Your task to perform on an android device: install app "Flipkart Online Shopping App" Image 0: 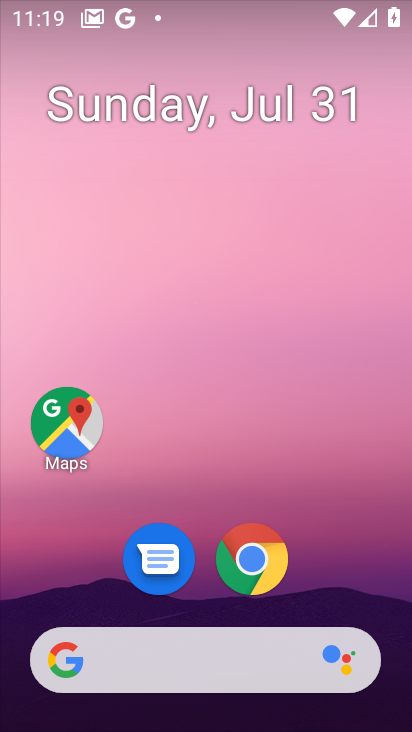
Step 0: drag from (128, 466) to (224, 13)
Your task to perform on an android device: install app "Flipkart Online Shopping App" Image 1: 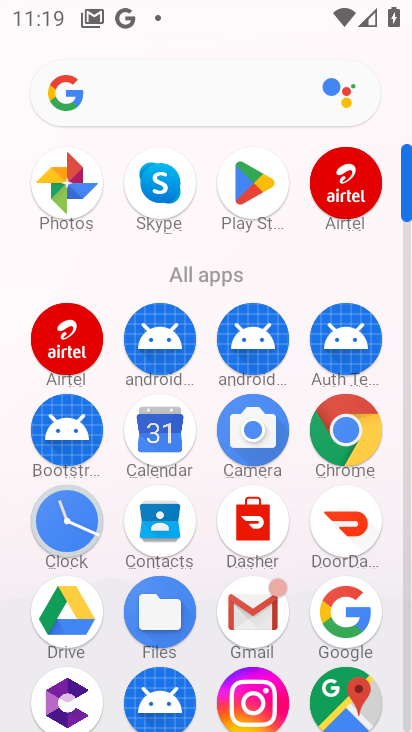
Step 1: click (257, 190)
Your task to perform on an android device: install app "Flipkart Online Shopping App" Image 2: 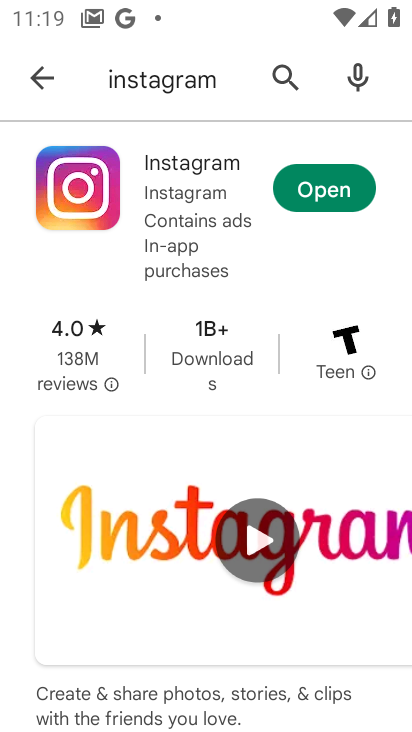
Step 2: click (279, 86)
Your task to perform on an android device: install app "Flipkart Online Shopping App" Image 3: 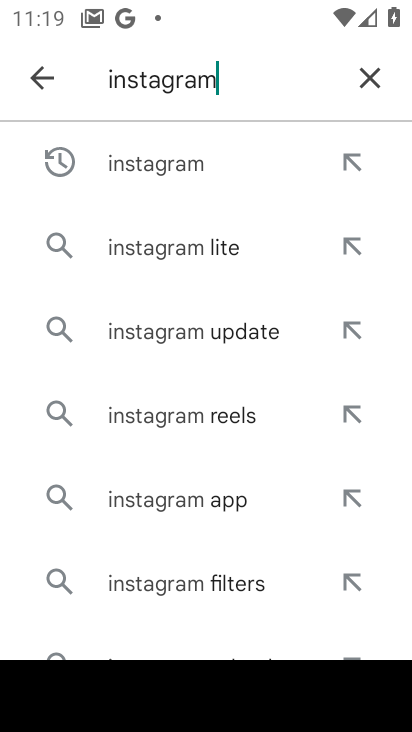
Step 3: click (374, 75)
Your task to perform on an android device: install app "Flipkart Online Shopping App" Image 4: 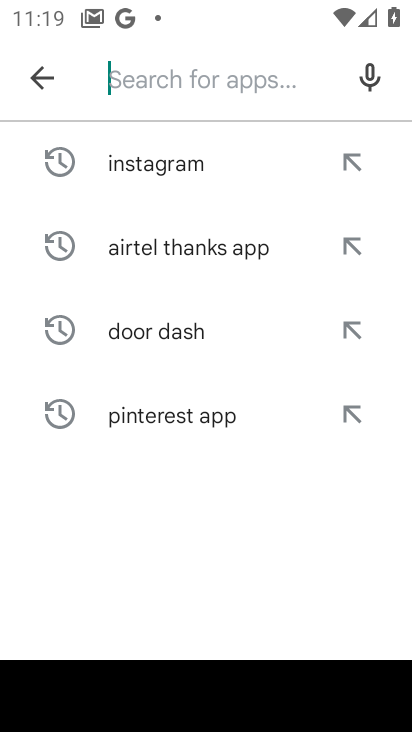
Step 4: click (179, 75)
Your task to perform on an android device: install app "Flipkart Online Shopping App" Image 5: 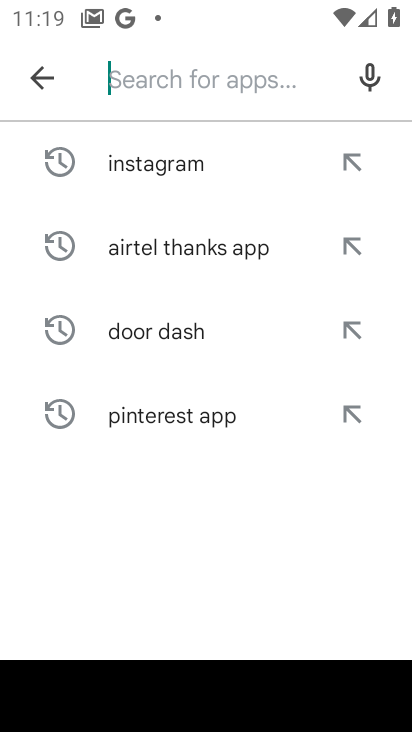
Step 5: click (137, 70)
Your task to perform on an android device: install app "Flipkart Online Shopping App" Image 6: 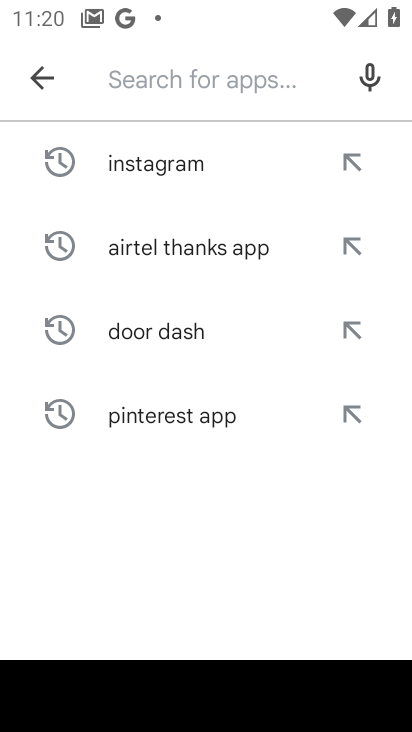
Step 6: type "flipkart"
Your task to perform on an android device: install app "Flipkart Online Shopping App" Image 7: 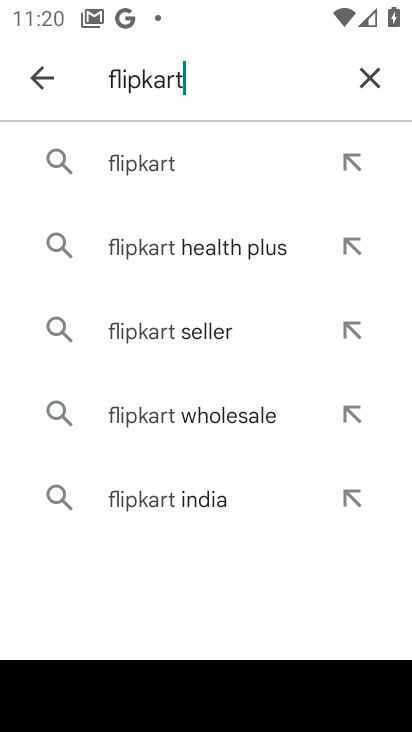
Step 7: click (165, 147)
Your task to perform on an android device: install app "Flipkart Online Shopping App" Image 8: 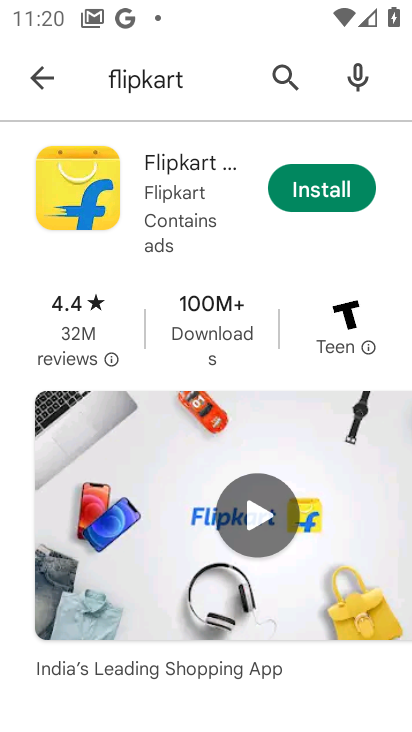
Step 8: click (320, 191)
Your task to perform on an android device: install app "Flipkart Online Shopping App" Image 9: 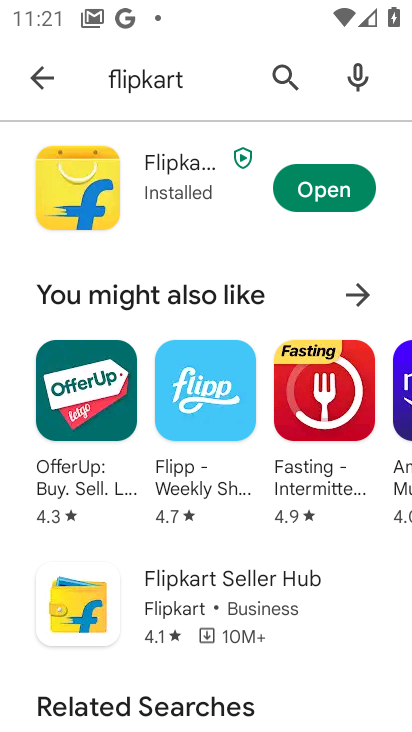
Step 9: click (333, 196)
Your task to perform on an android device: install app "Flipkart Online Shopping App" Image 10: 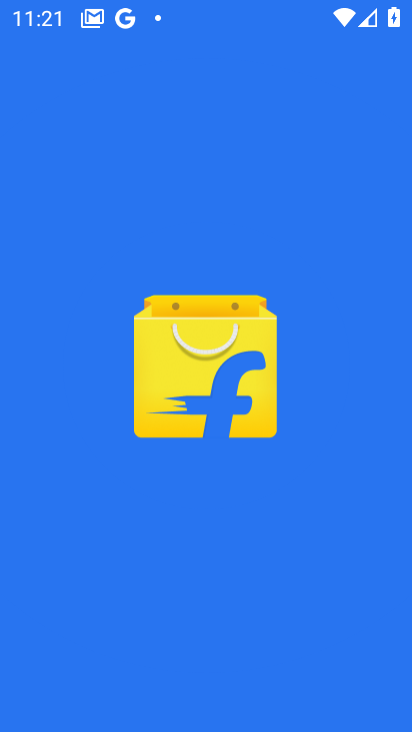
Step 10: task complete